Your task to perform on an android device: Search for Italian restaurants on Maps Image 0: 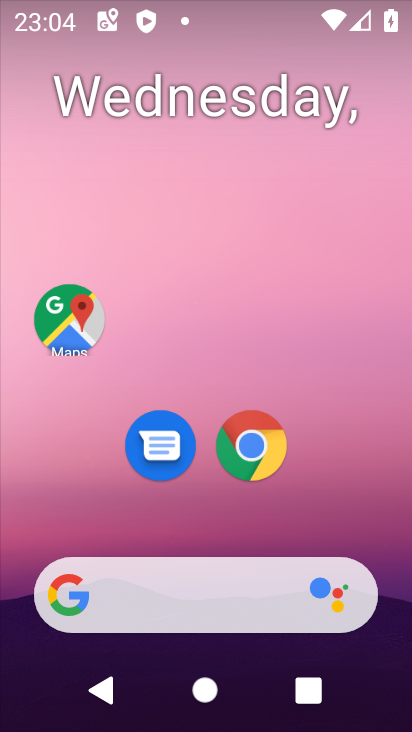
Step 0: click (67, 316)
Your task to perform on an android device: Search for Italian restaurants on Maps Image 1: 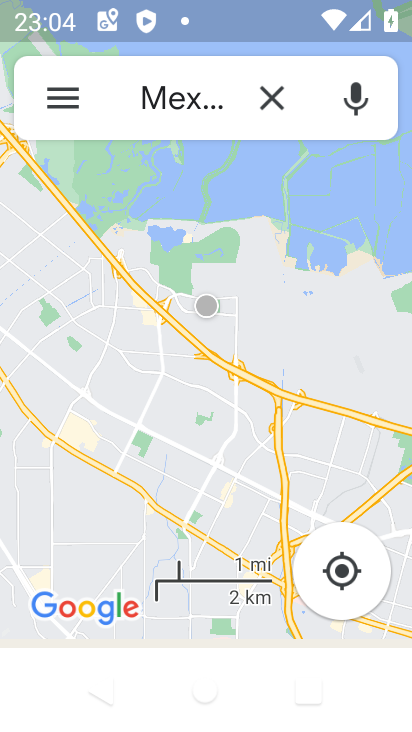
Step 1: click (278, 108)
Your task to perform on an android device: Search for Italian restaurants on Maps Image 2: 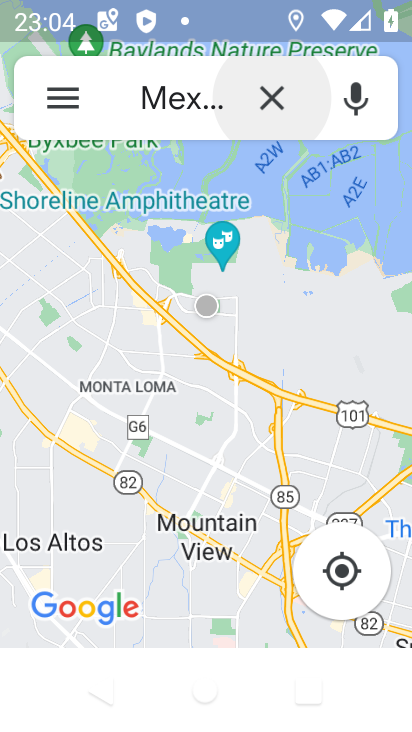
Step 2: click (264, 95)
Your task to perform on an android device: Search for Italian restaurants on Maps Image 3: 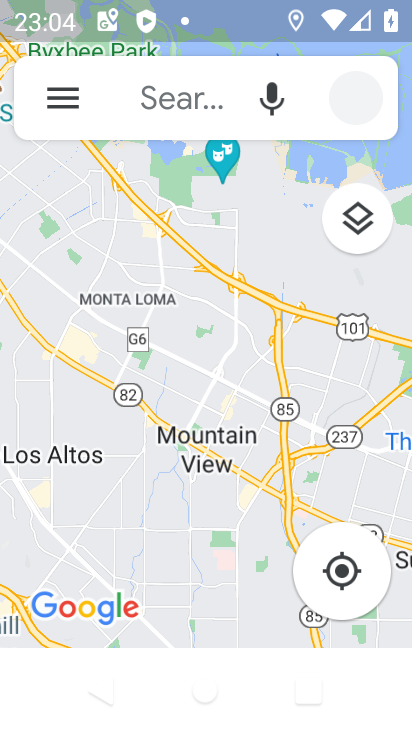
Step 3: click (214, 95)
Your task to perform on an android device: Search for Italian restaurants on Maps Image 4: 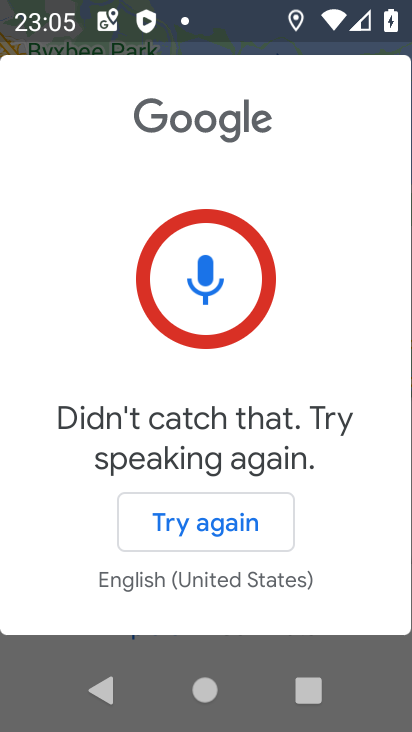
Step 4: press back button
Your task to perform on an android device: Search for Italian restaurants on Maps Image 5: 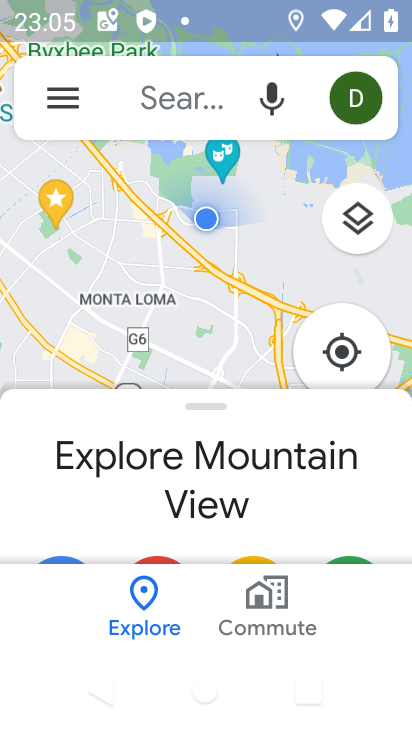
Step 5: click (195, 97)
Your task to perform on an android device: Search for Italian restaurants on Maps Image 6: 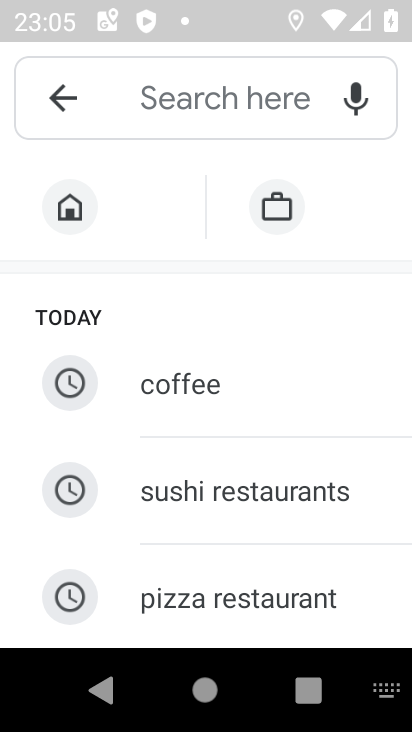
Step 6: type "Italian restaurants"
Your task to perform on an android device: Search for Italian restaurants on Maps Image 7: 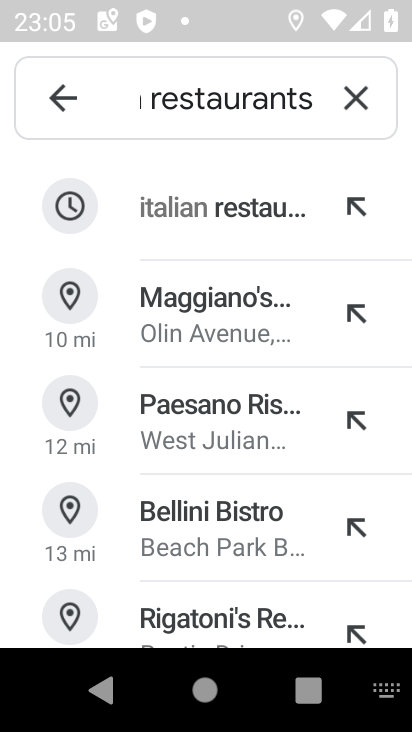
Step 7: click (229, 224)
Your task to perform on an android device: Search for Italian restaurants on Maps Image 8: 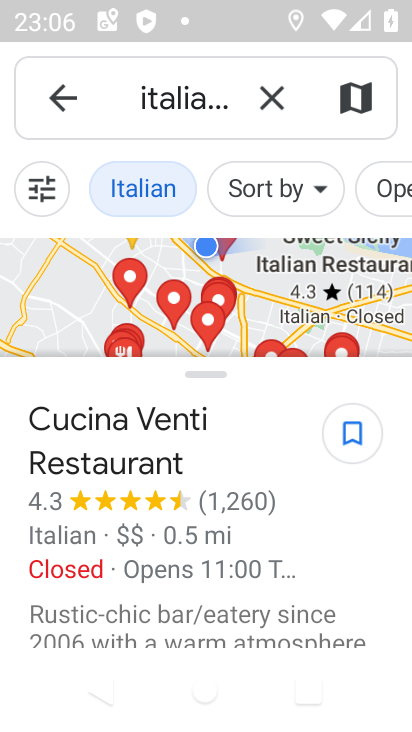
Step 8: task complete